Your task to perform on an android device: Open Chrome and go to settings Image 0: 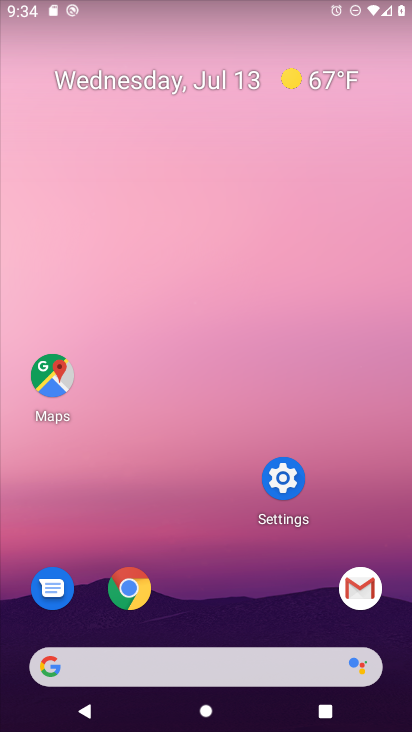
Step 0: click (121, 596)
Your task to perform on an android device: Open Chrome and go to settings Image 1: 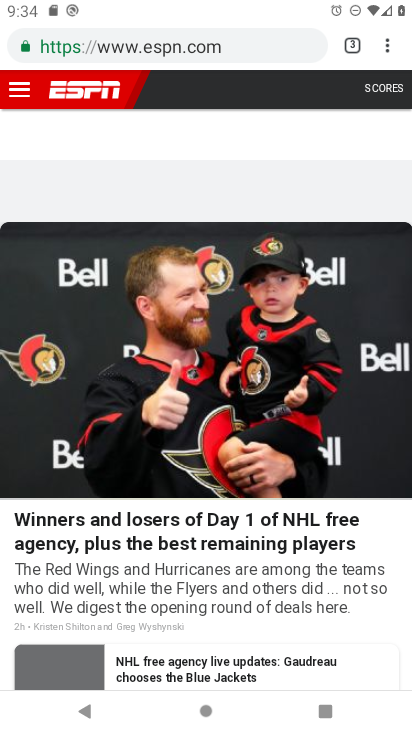
Step 1: click (385, 43)
Your task to perform on an android device: Open Chrome and go to settings Image 2: 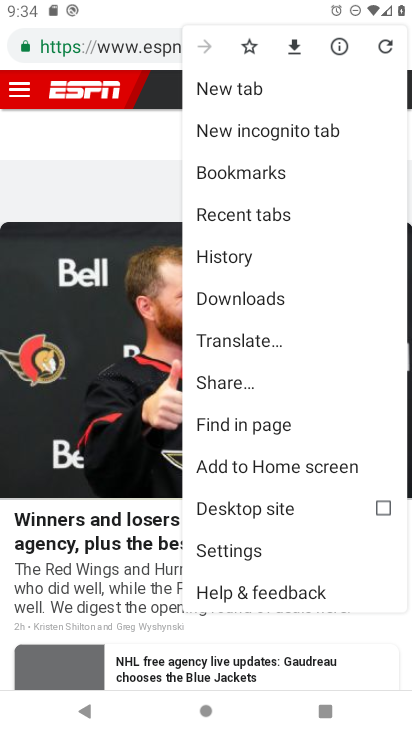
Step 2: click (223, 548)
Your task to perform on an android device: Open Chrome and go to settings Image 3: 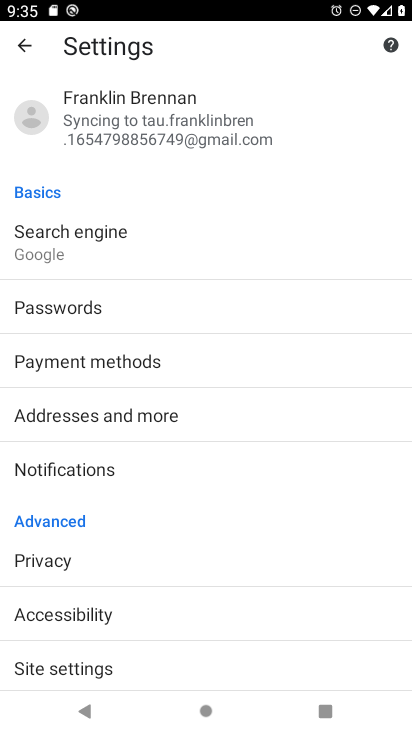
Step 3: task complete